Your task to perform on an android device: empty trash in google photos Image 0: 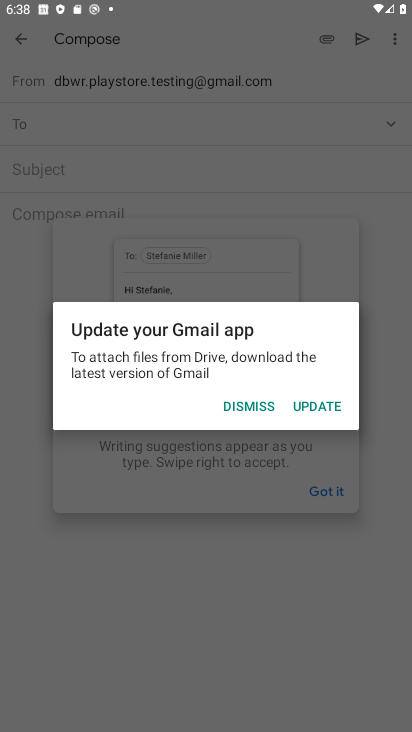
Step 0: press home button
Your task to perform on an android device: empty trash in google photos Image 1: 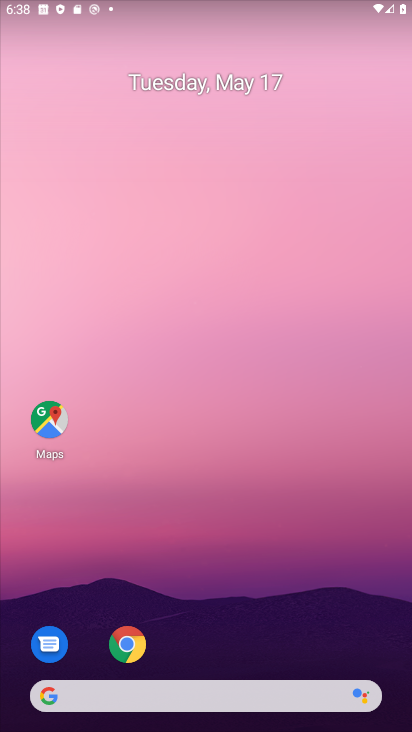
Step 1: drag from (357, 614) to (368, 9)
Your task to perform on an android device: empty trash in google photos Image 2: 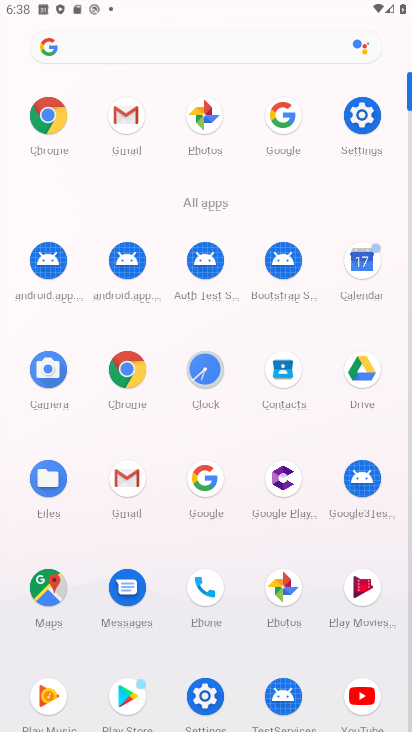
Step 2: click (274, 589)
Your task to perform on an android device: empty trash in google photos Image 3: 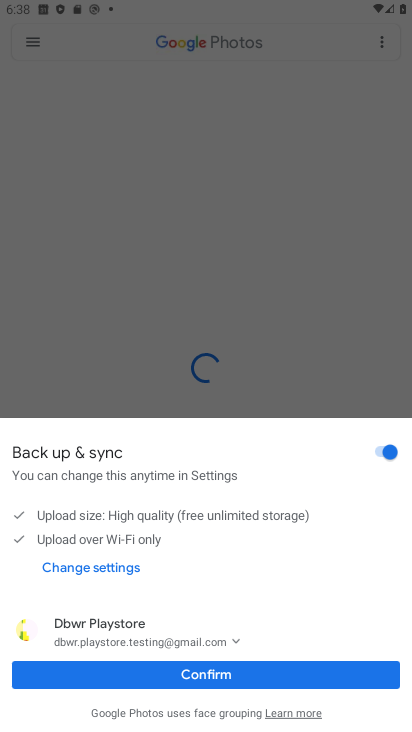
Step 3: click (198, 673)
Your task to perform on an android device: empty trash in google photos Image 4: 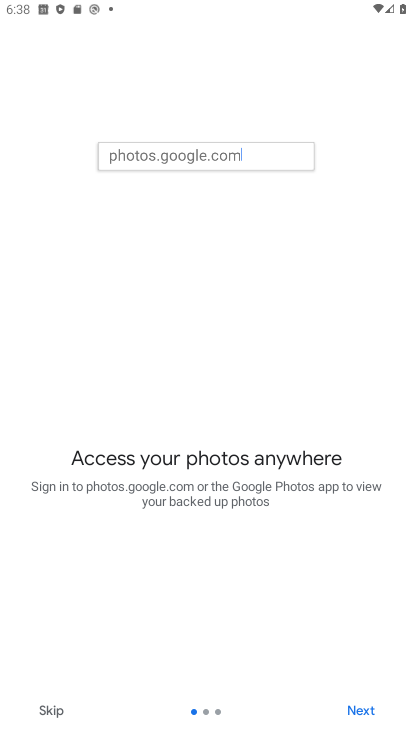
Step 4: click (344, 709)
Your task to perform on an android device: empty trash in google photos Image 5: 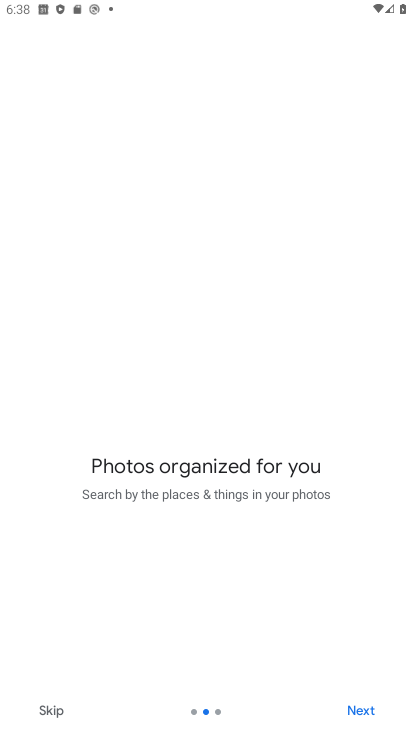
Step 5: click (365, 709)
Your task to perform on an android device: empty trash in google photos Image 6: 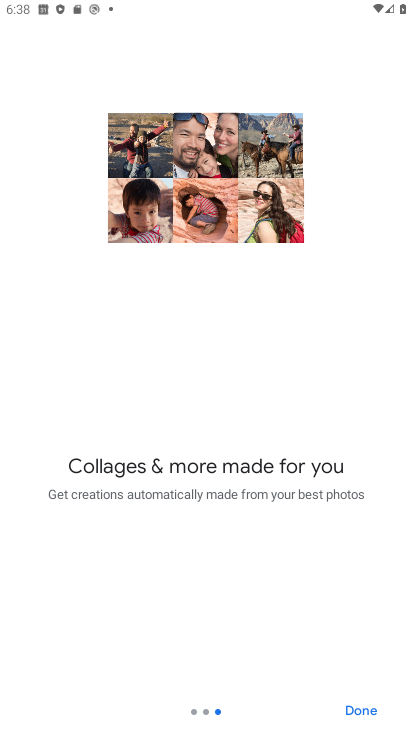
Step 6: click (365, 709)
Your task to perform on an android device: empty trash in google photos Image 7: 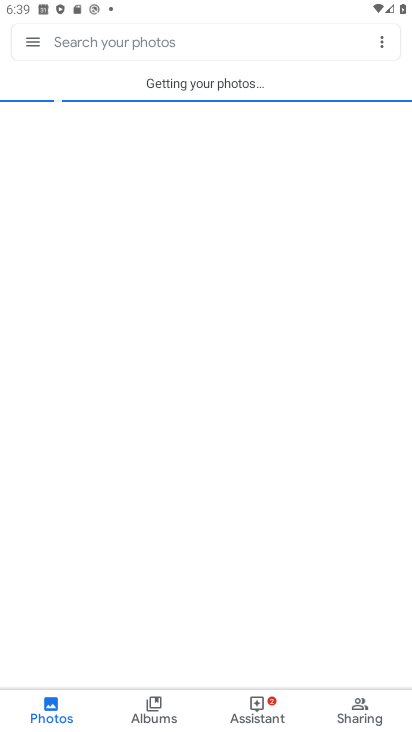
Step 7: click (35, 38)
Your task to perform on an android device: empty trash in google photos Image 8: 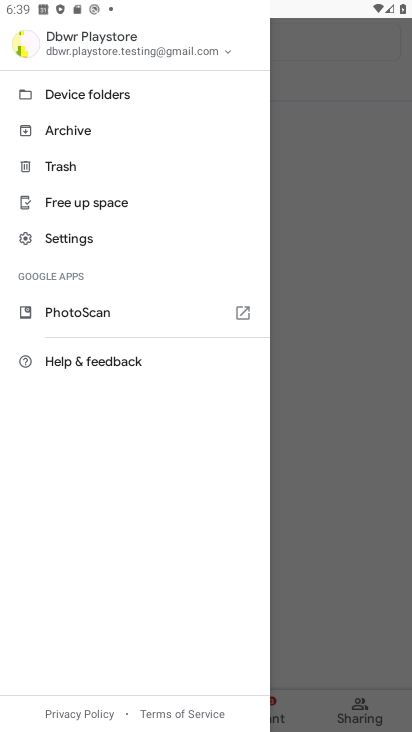
Step 8: click (87, 231)
Your task to perform on an android device: empty trash in google photos Image 9: 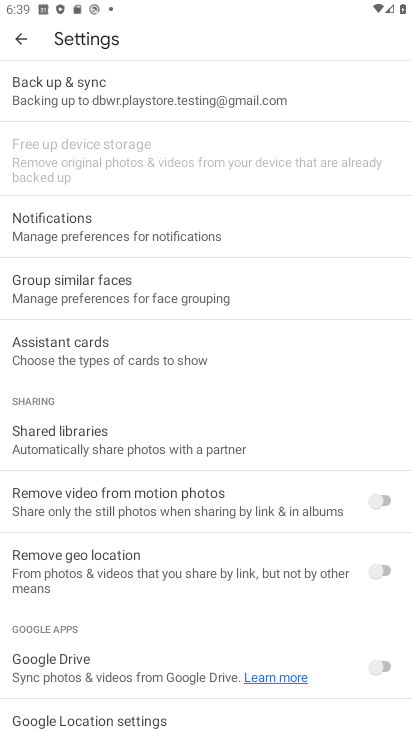
Step 9: press back button
Your task to perform on an android device: empty trash in google photos Image 10: 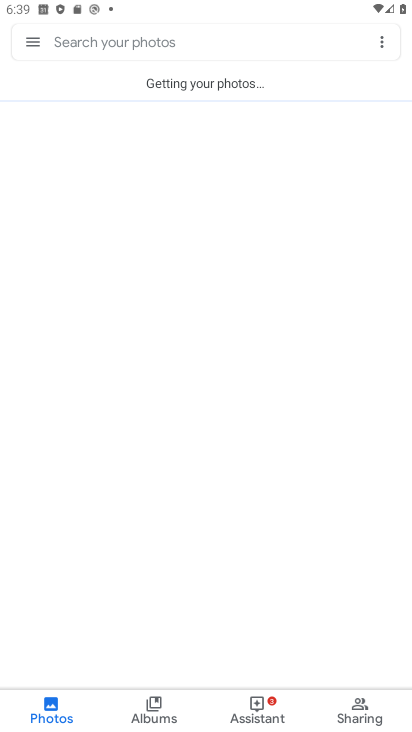
Step 10: click (22, 39)
Your task to perform on an android device: empty trash in google photos Image 11: 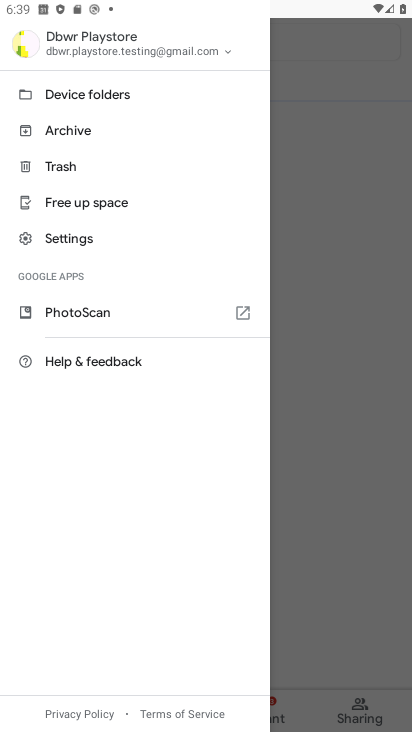
Step 11: click (72, 170)
Your task to perform on an android device: empty trash in google photos Image 12: 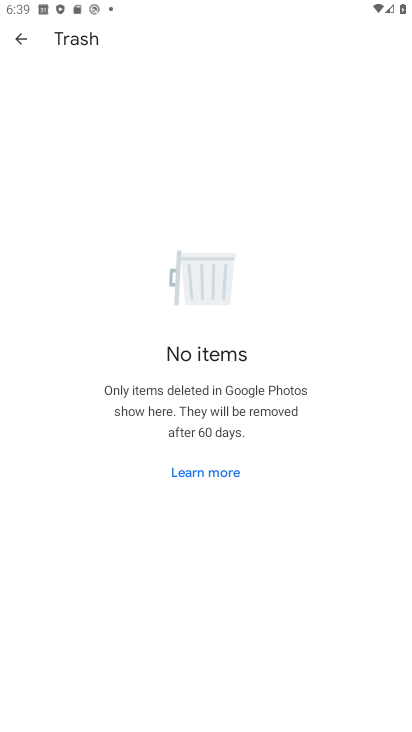
Step 12: task complete